Your task to perform on an android device: Open Google Chrome and click the shortcut for Amazon.com Image 0: 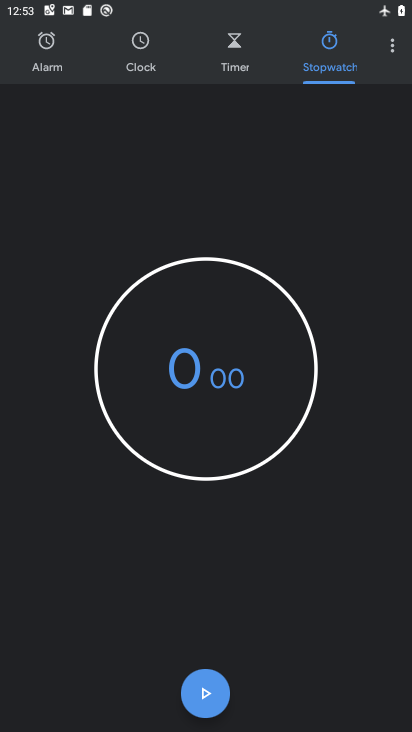
Step 0: press home button
Your task to perform on an android device: Open Google Chrome and click the shortcut for Amazon.com Image 1: 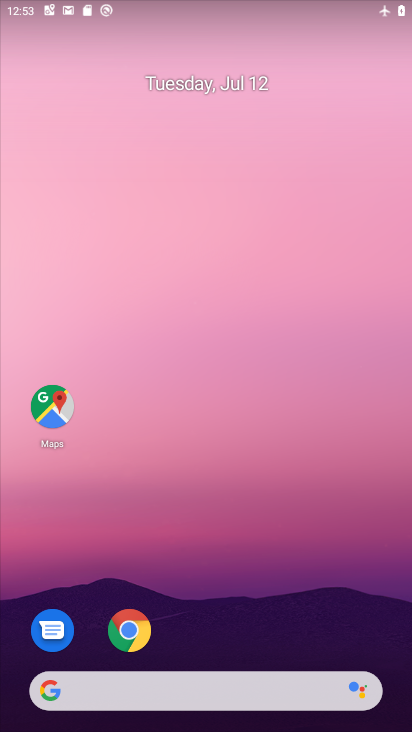
Step 1: drag from (225, 694) to (236, 29)
Your task to perform on an android device: Open Google Chrome and click the shortcut for Amazon.com Image 2: 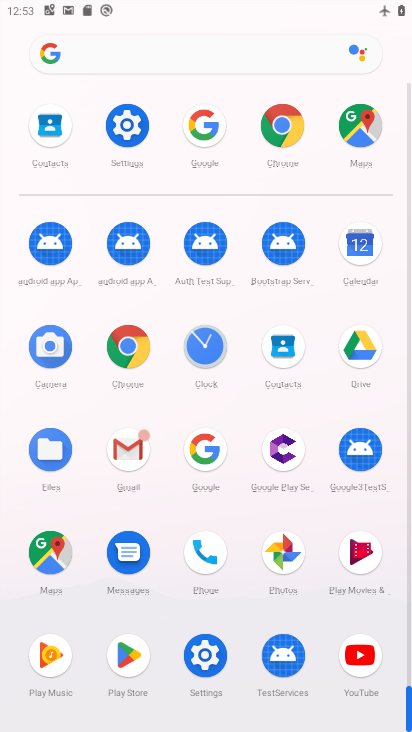
Step 2: click (286, 123)
Your task to perform on an android device: Open Google Chrome and click the shortcut for Amazon.com Image 3: 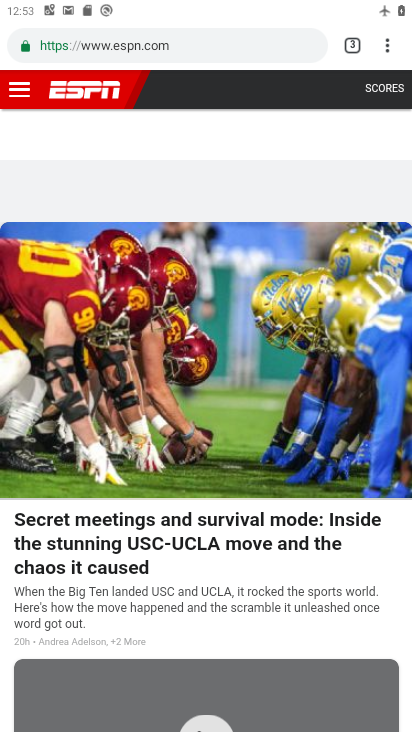
Step 3: drag from (347, 44) to (320, 219)
Your task to perform on an android device: Open Google Chrome and click the shortcut for Amazon.com Image 4: 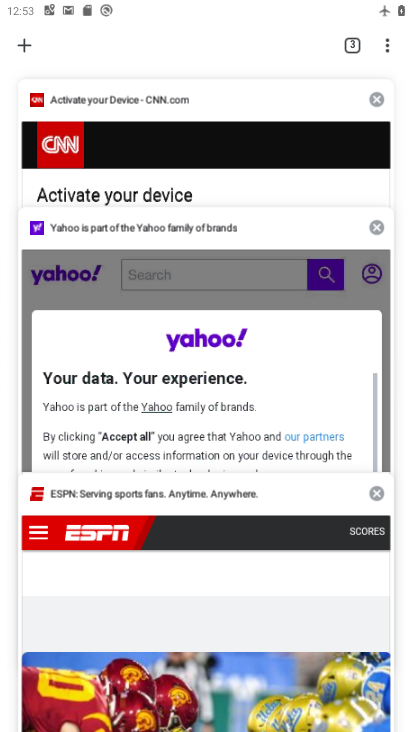
Step 4: click (25, 38)
Your task to perform on an android device: Open Google Chrome and click the shortcut for Amazon.com Image 5: 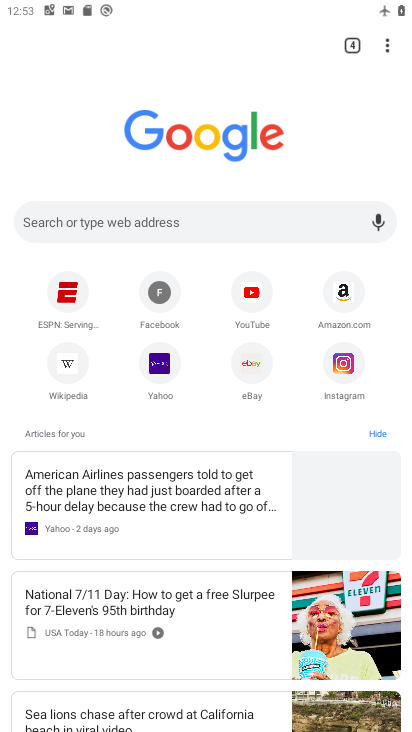
Step 5: click (336, 306)
Your task to perform on an android device: Open Google Chrome and click the shortcut for Amazon.com Image 6: 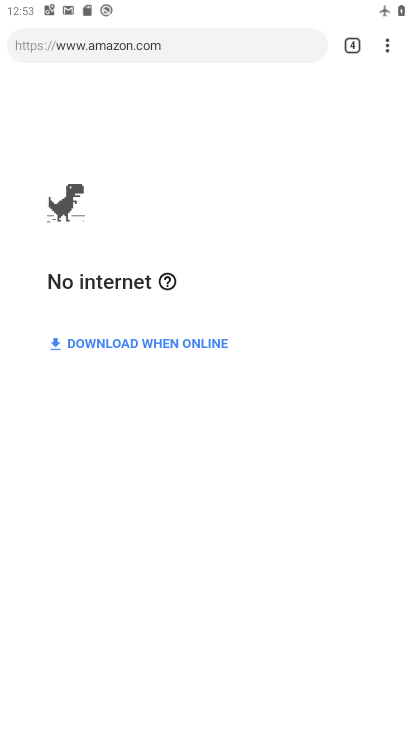
Step 6: task complete